Your task to perform on an android device: set default search engine in the chrome app Image 0: 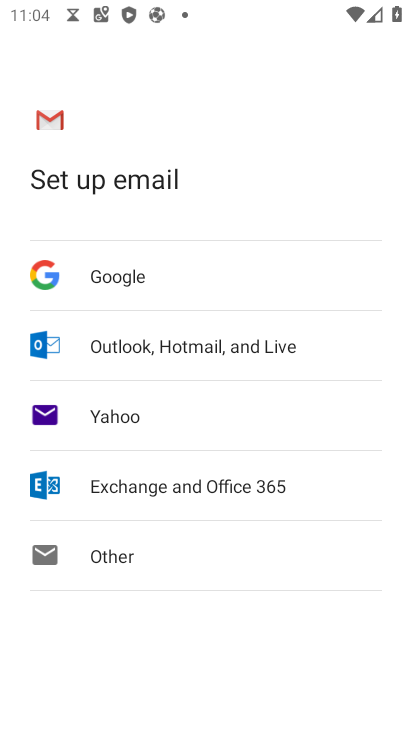
Step 0: press home button
Your task to perform on an android device: set default search engine in the chrome app Image 1: 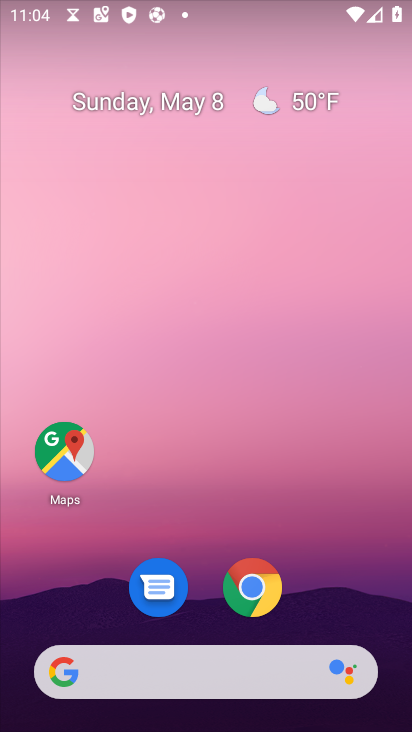
Step 1: click (258, 584)
Your task to perform on an android device: set default search engine in the chrome app Image 2: 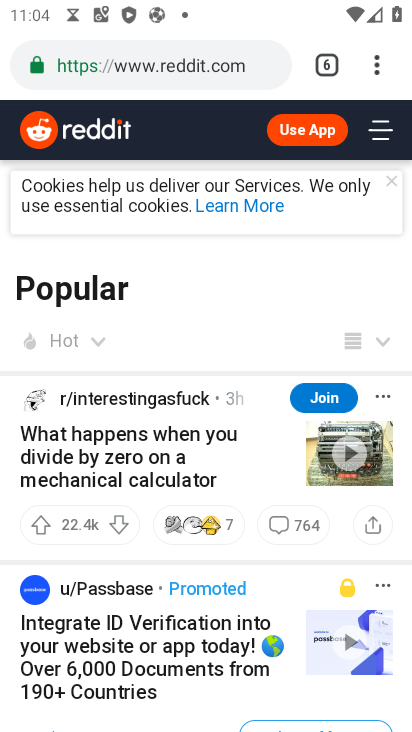
Step 2: drag from (374, 65) to (188, 635)
Your task to perform on an android device: set default search engine in the chrome app Image 3: 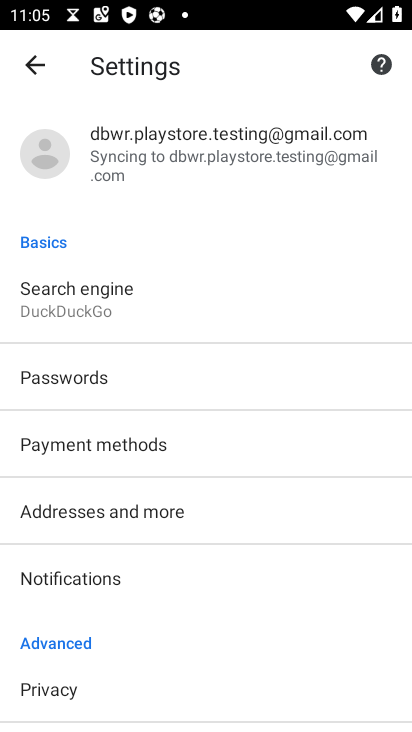
Step 3: click (93, 306)
Your task to perform on an android device: set default search engine in the chrome app Image 4: 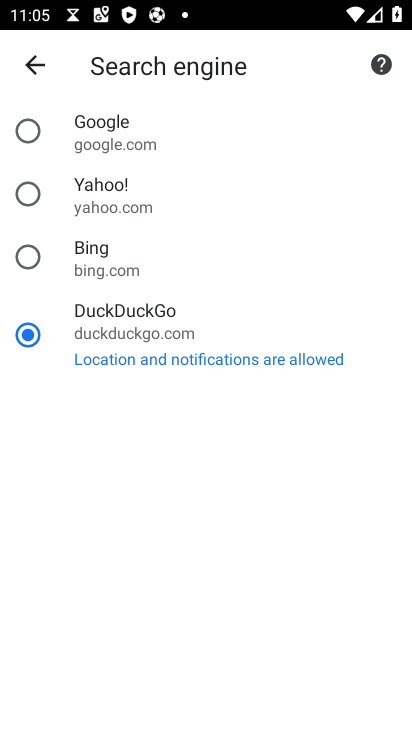
Step 4: click (83, 131)
Your task to perform on an android device: set default search engine in the chrome app Image 5: 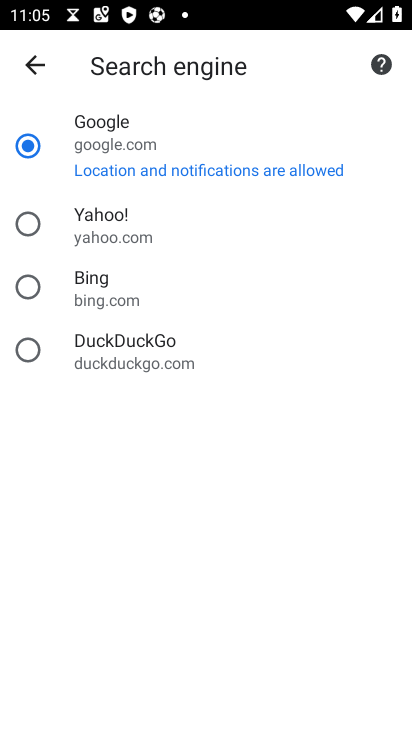
Step 5: task complete